Your task to perform on an android device: move a message to another label in the gmail app Image 0: 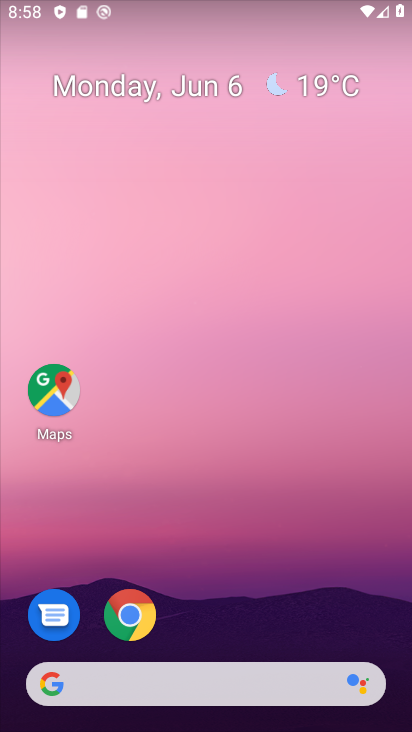
Step 0: drag from (201, 646) to (196, 43)
Your task to perform on an android device: move a message to another label in the gmail app Image 1: 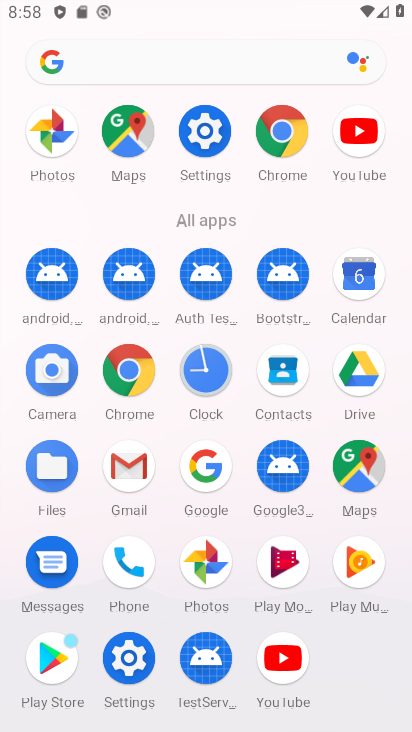
Step 1: click (148, 453)
Your task to perform on an android device: move a message to another label in the gmail app Image 2: 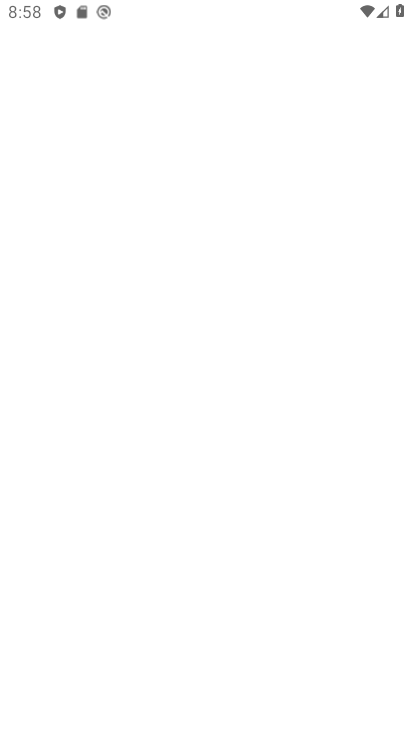
Step 2: click (125, 416)
Your task to perform on an android device: move a message to another label in the gmail app Image 3: 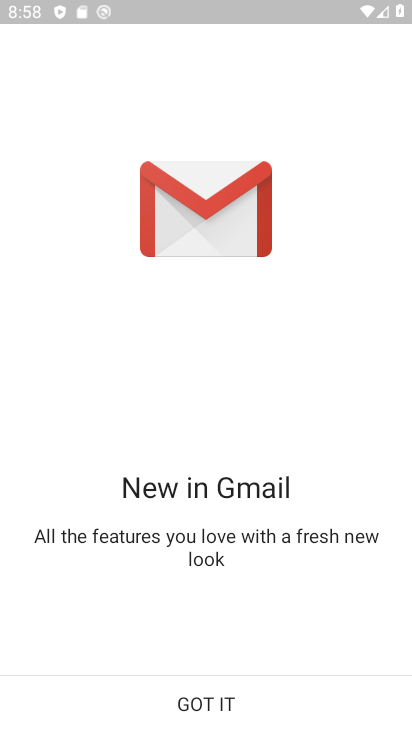
Step 3: click (107, 712)
Your task to perform on an android device: move a message to another label in the gmail app Image 4: 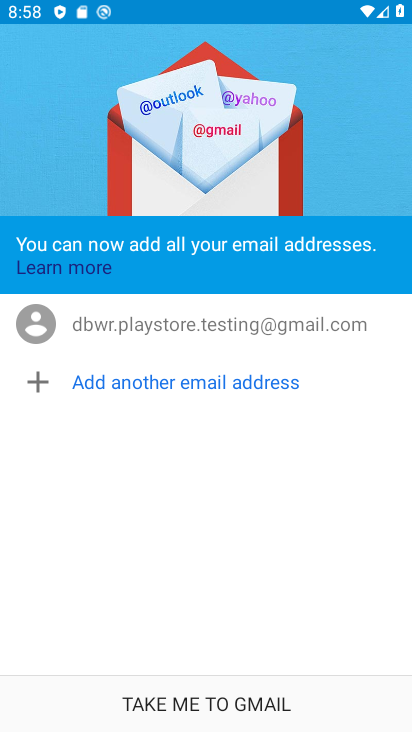
Step 4: click (107, 712)
Your task to perform on an android device: move a message to another label in the gmail app Image 5: 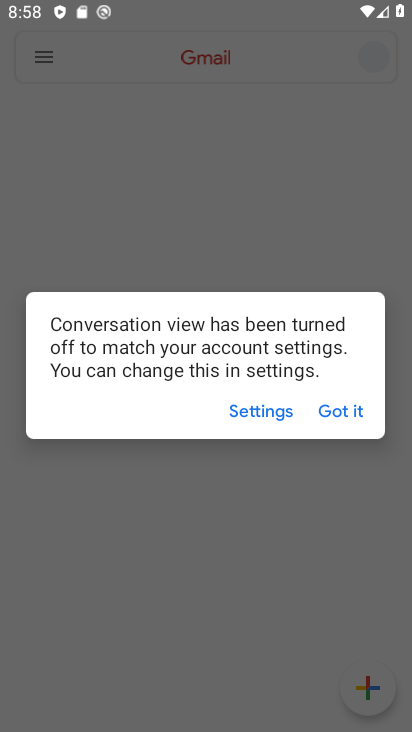
Step 5: click (335, 412)
Your task to perform on an android device: move a message to another label in the gmail app Image 6: 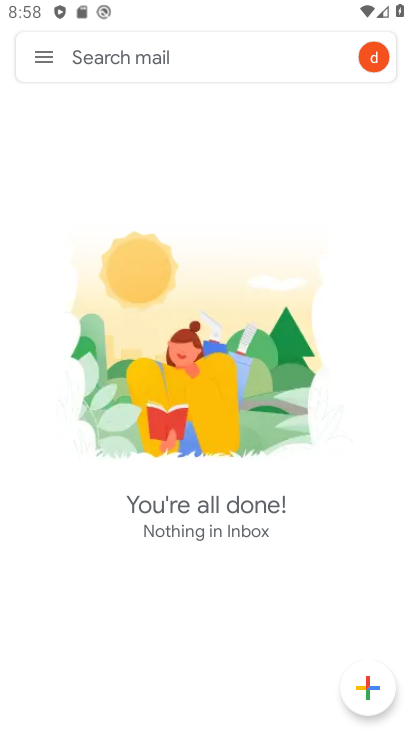
Step 6: click (22, 47)
Your task to perform on an android device: move a message to another label in the gmail app Image 7: 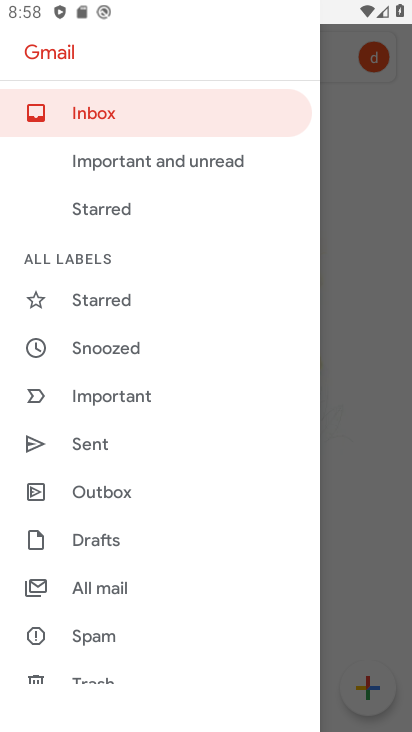
Step 7: drag from (105, 631) to (179, 264)
Your task to perform on an android device: move a message to another label in the gmail app Image 8: 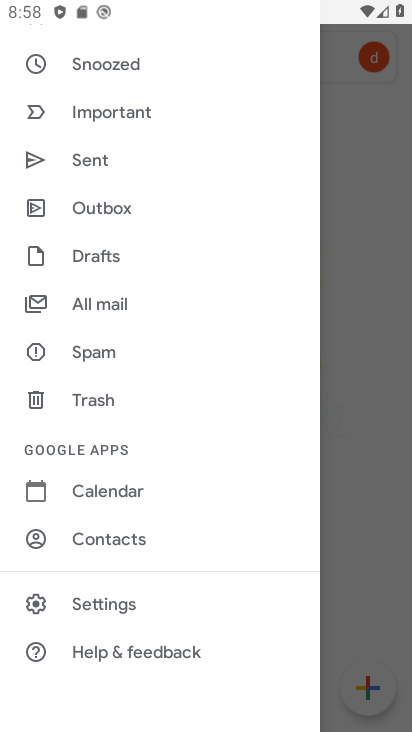
Step 8: click (134, 602)
Your task to perform on an android device: move a message to another label in the gmail app Image 9: 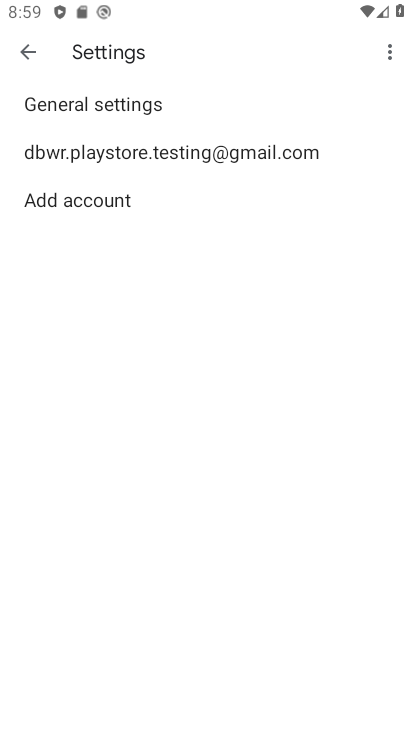
Step 9: task complete